Your task to perform on an android device: Find coffee shops on Maps Image 0: 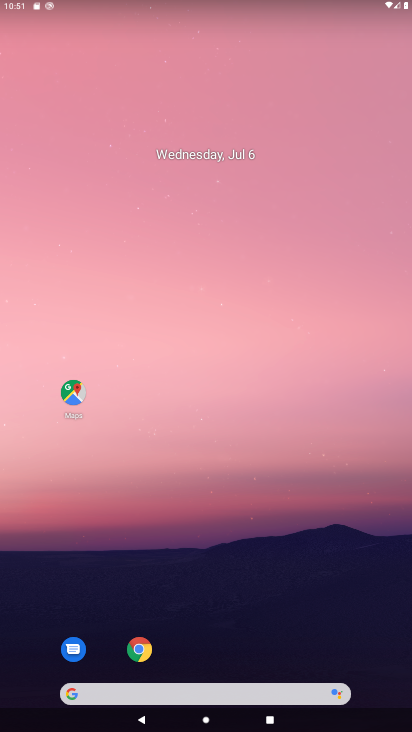
Step 0: drag from (168, 660) to (245, 19)
Your task to perform on an android device: Find coffee shops on Maps Image 1: 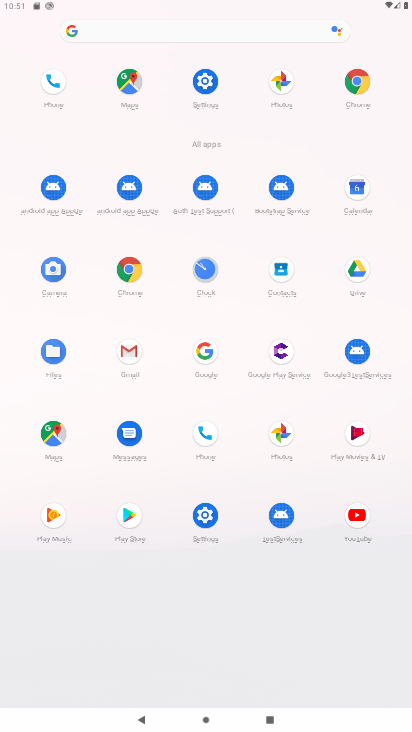
Step 1: click (54, 439)
Your task to perform on an android device: Find coffee shops on Maps Image 2: 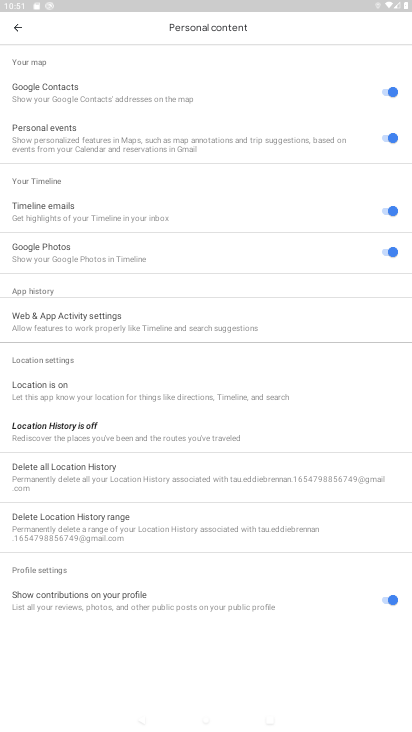
Step 2: press back button
Your task to perform on an android device: Find coffee shops on Maps Image 3: 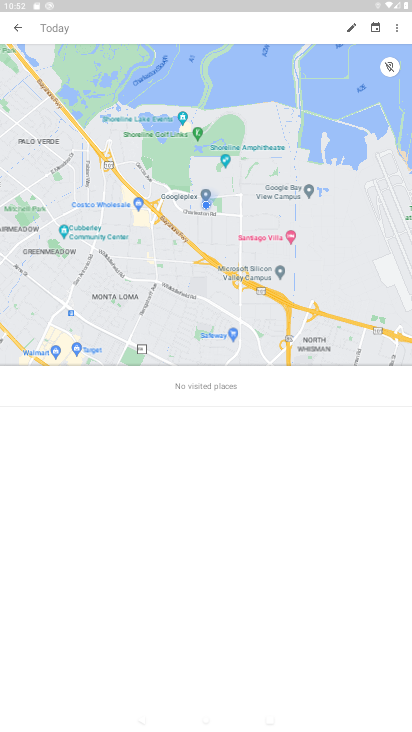
Step 3: press back button
Your task to perform on an android device: Find coffee shops on Maps Image 4: 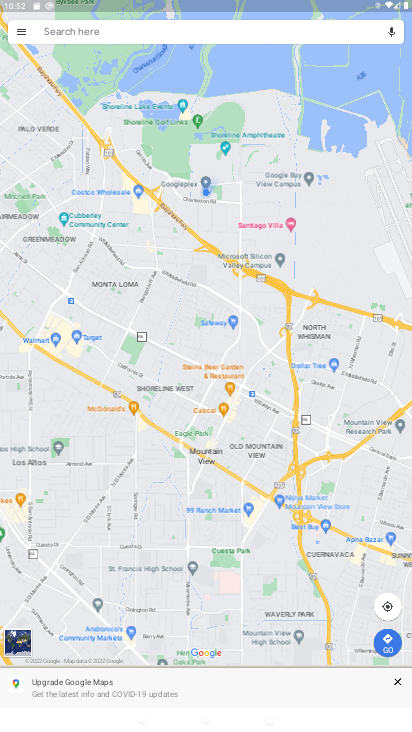
Step 4: click (93, 32)
Your task to perform on an android device: Find coffee shops on Maps Image 5: 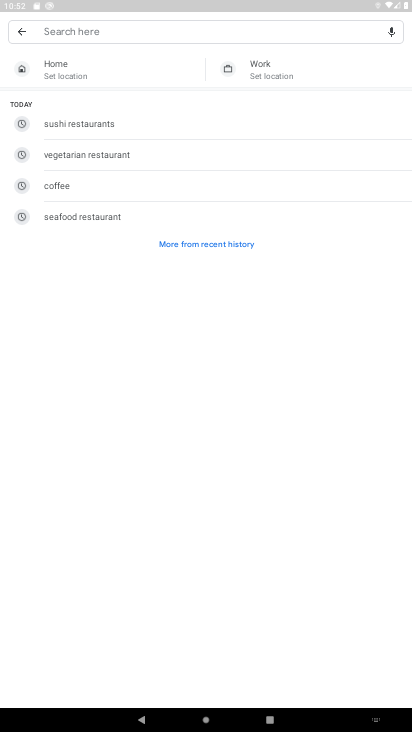
Step 5: type "coffee shops"
Your task to perform on an android device: Find coffee shops on Maps Image 6: 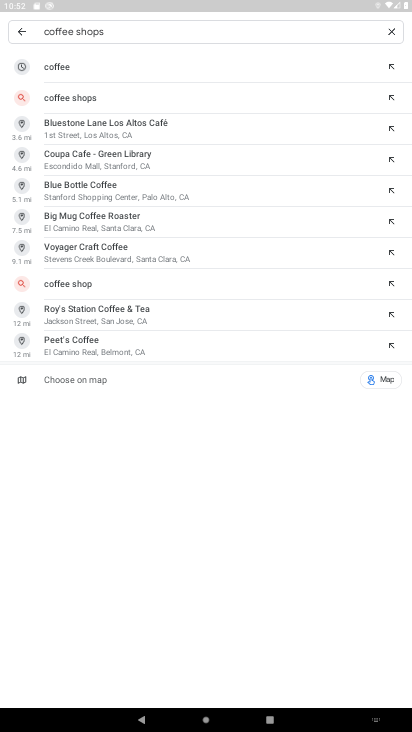
Step 6: click (118, 106)
Your task to perform on an android device: Find coffee shops on Maps Image 7: 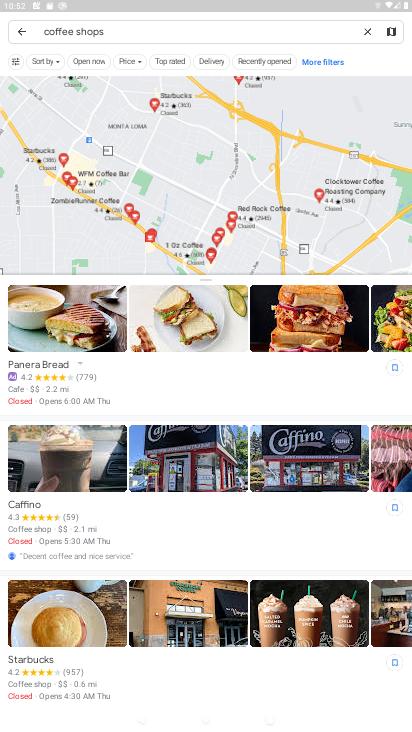
Step 7: task complete